Your task to perform on an android device: open sync settings in chrome Image 0: 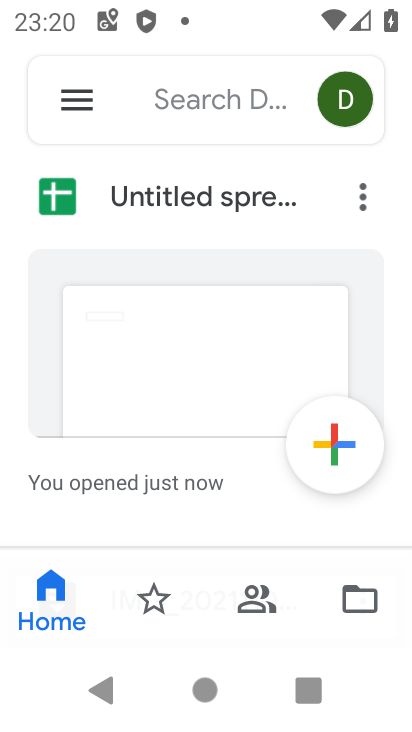
Step 0: press home button
Your task to perform on an android device: open sync settings in chrome Image 1: 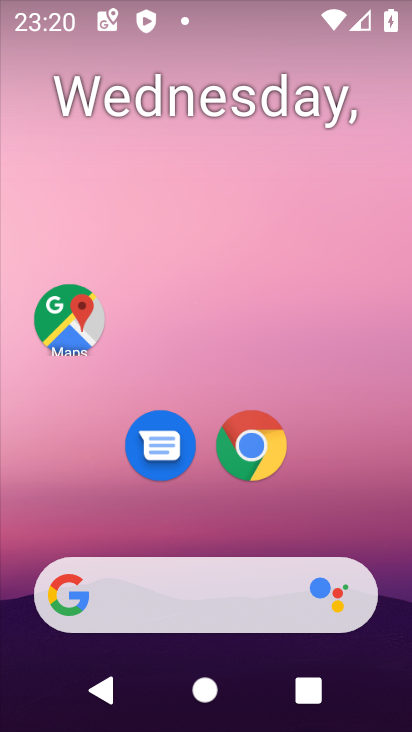
Step 1: click (242, 442)
Your task to perform on an android device: open sync settings in chrome Image 2: 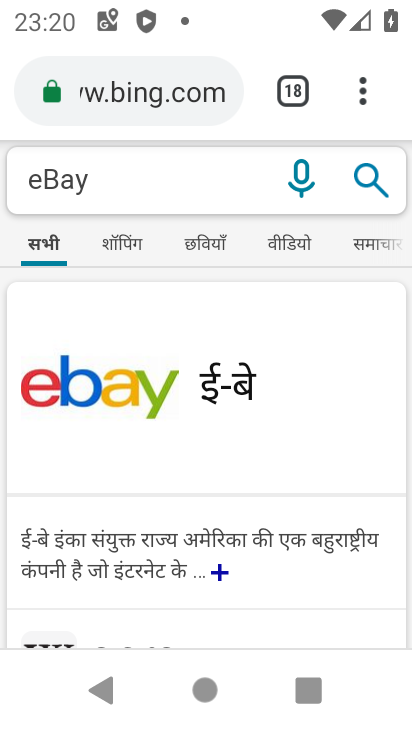
Step 2: click (363, 95)
Your task to perform on an android device: open sync settings in chrome Image 3: 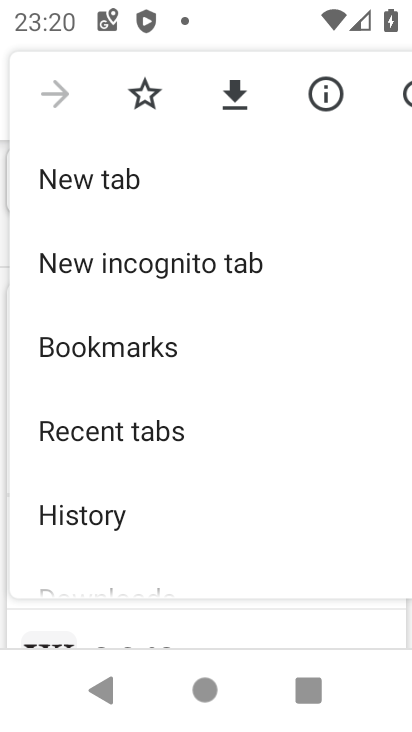
Step 3: drag from (122, 548) to (221, 206)
Your task to perform on an android device: open sync settings in chrome Image 4: 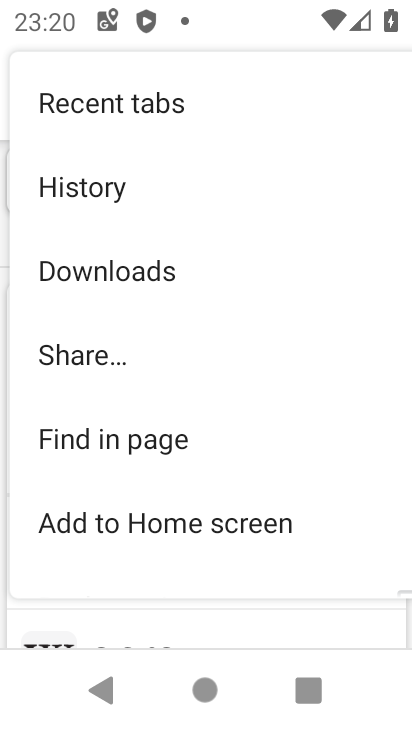
Step 4: drag from (142, 527) to (203, 252)
Your task to perform on an android device: open sync settings in chrome Image 5: 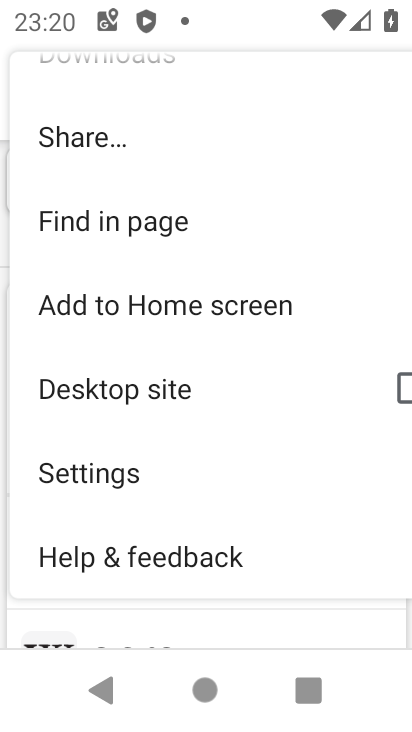
Step 5: click (138, 480)
Your task to perform on an android device: open sync settings in chrome Image 6: 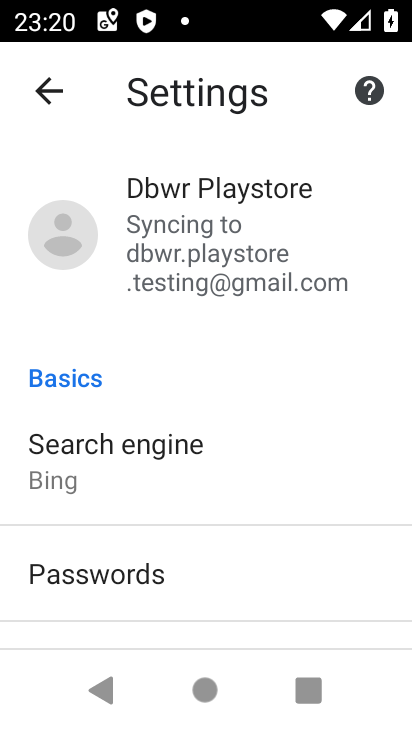
Step 6: click (157, 245)
Your task to perform on an android device: open sync settings in chrome Image 7: 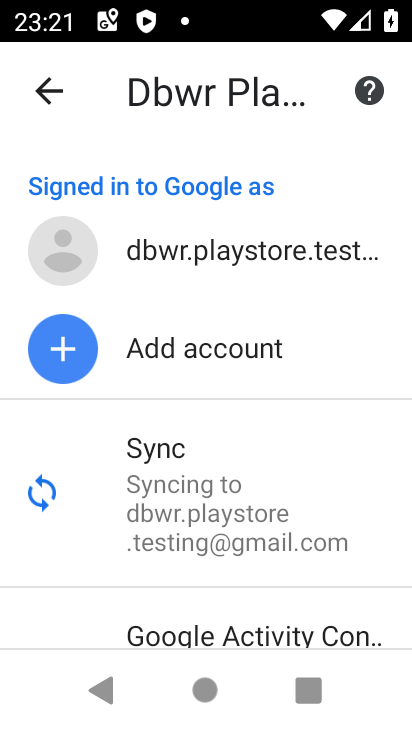
Step 7: task complete